Your task to perform on an android device: open a new tab in the chrome app Image 0: 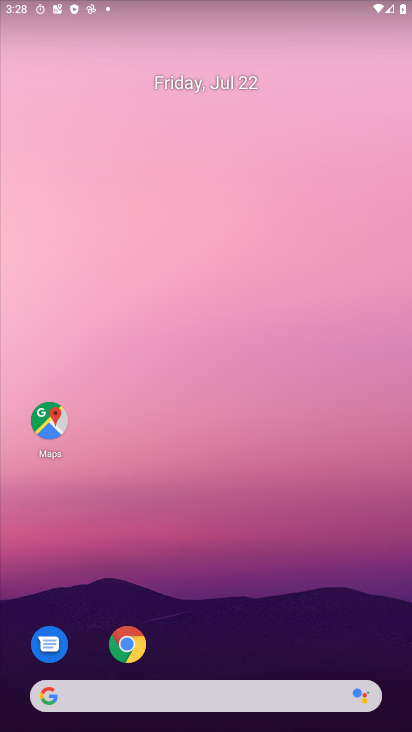
Step 0: drag from (209, 702) to (154, 88)
Your task to perform on an android device: open a new tab in the chrome app Image 1: 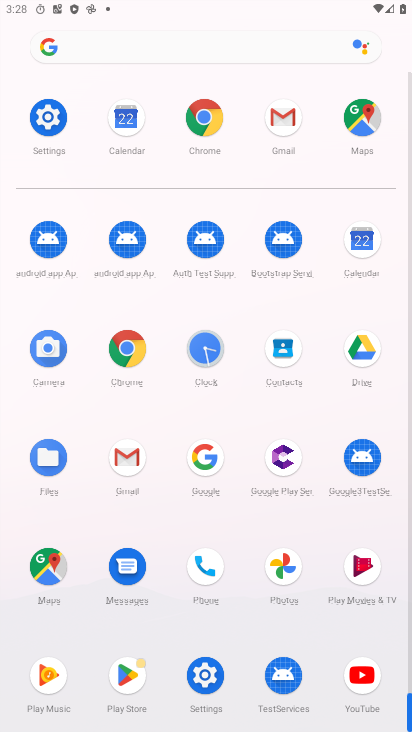
Step 1: click (135, 355)
Your task to perform on an android device: open a new tab in the chrome app Image 2: 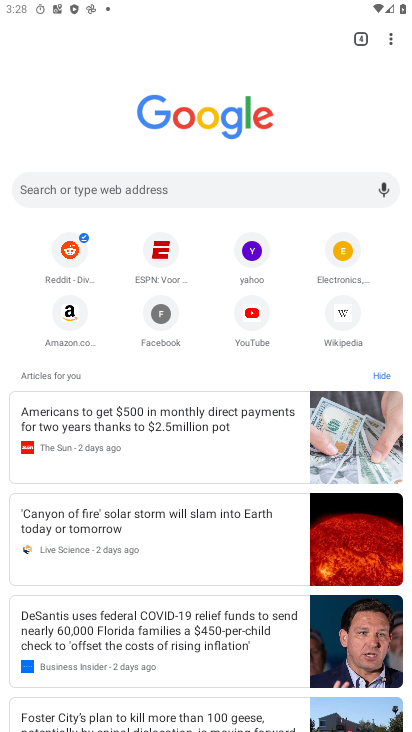
Step 2: drag from (358, 51) to (367, 344)
Your task to perform on an android device: open a new tab in the chrome app Image 3: 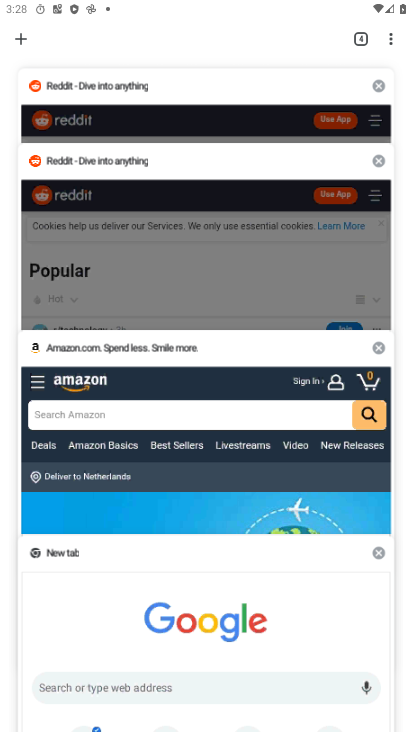
Step 3: click (27, 44)
Your task to perform on an android device: open a new tab in the chrome app Image 4: 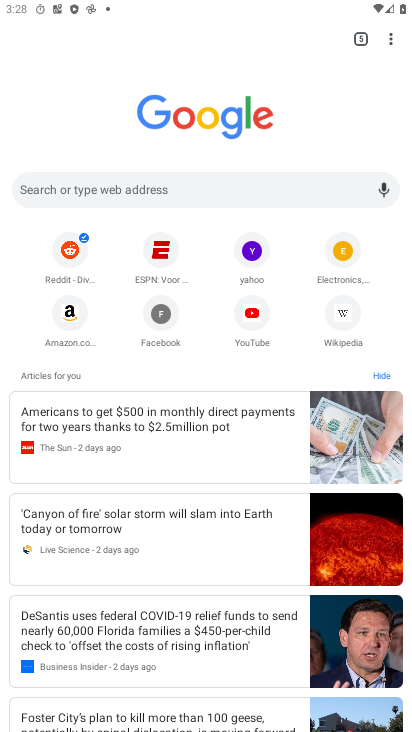
Step 4: task complete